Your task to perform on an android device: Check the weather Image 0: 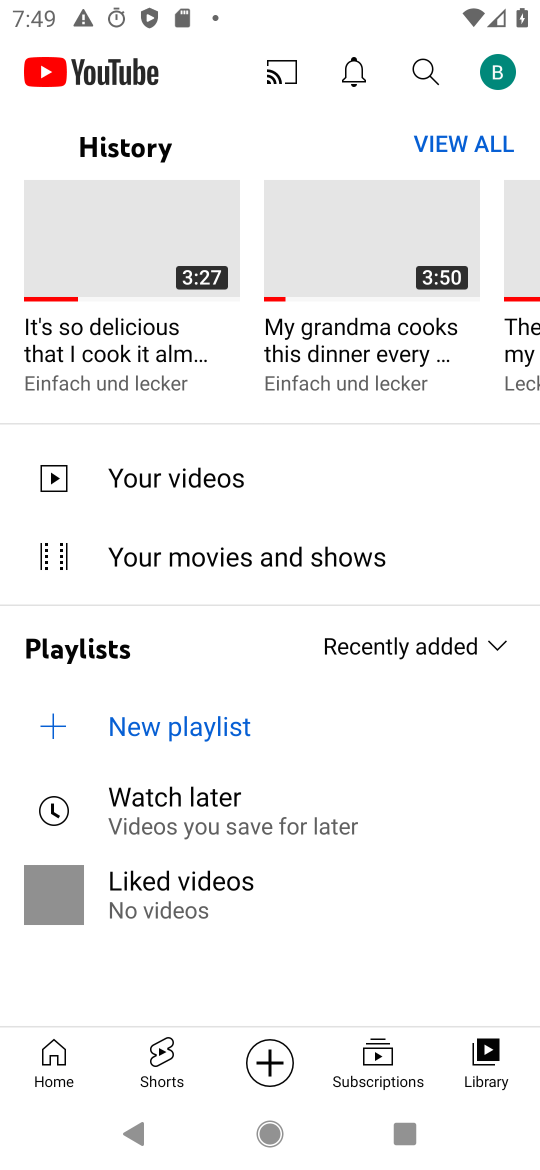
Step 0: press home button
Your task to perform on an android device: Check the weather Image 1: 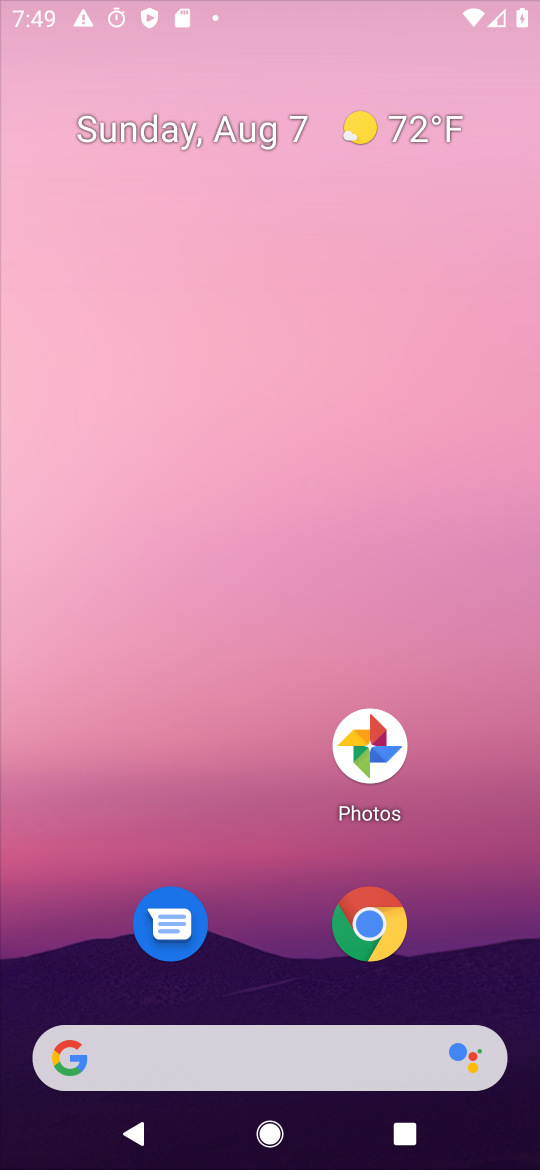
Step 1: press home button
Your task to perform on an android device: Check the weather Image 2: 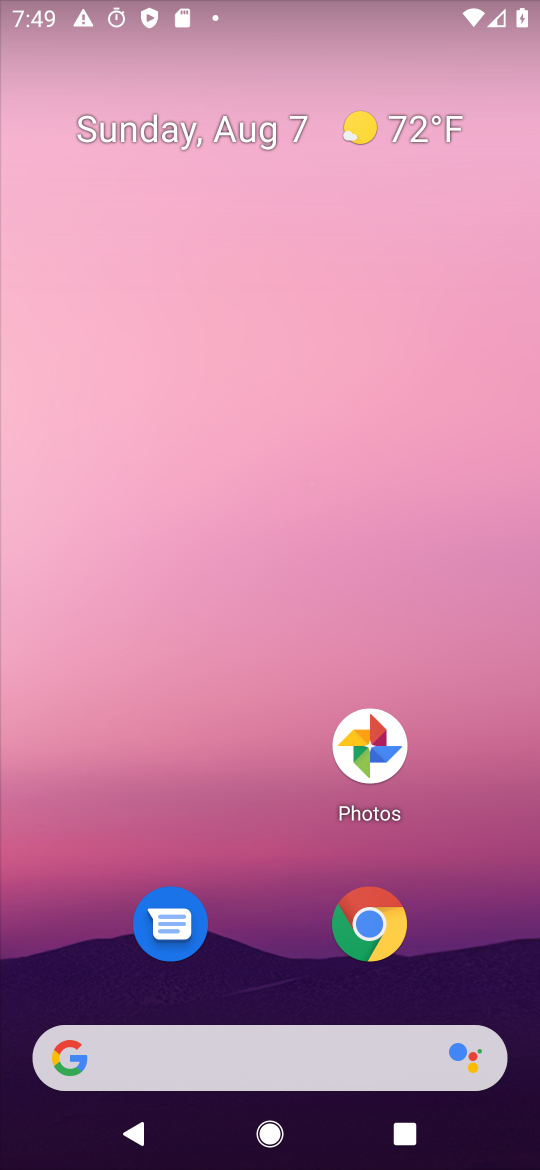
Step 2: click (224, 1093)
Your task to perform on an android device: Check the weather Image 3: 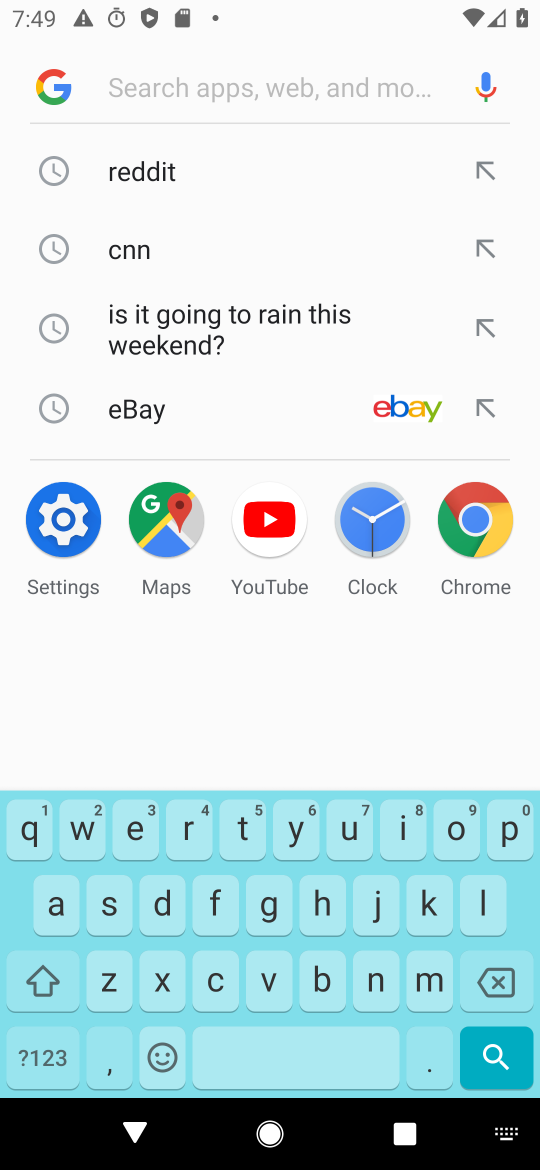
Step 3: click (87, 848)
Your task to perform on an android device: Check the weather Image 4: 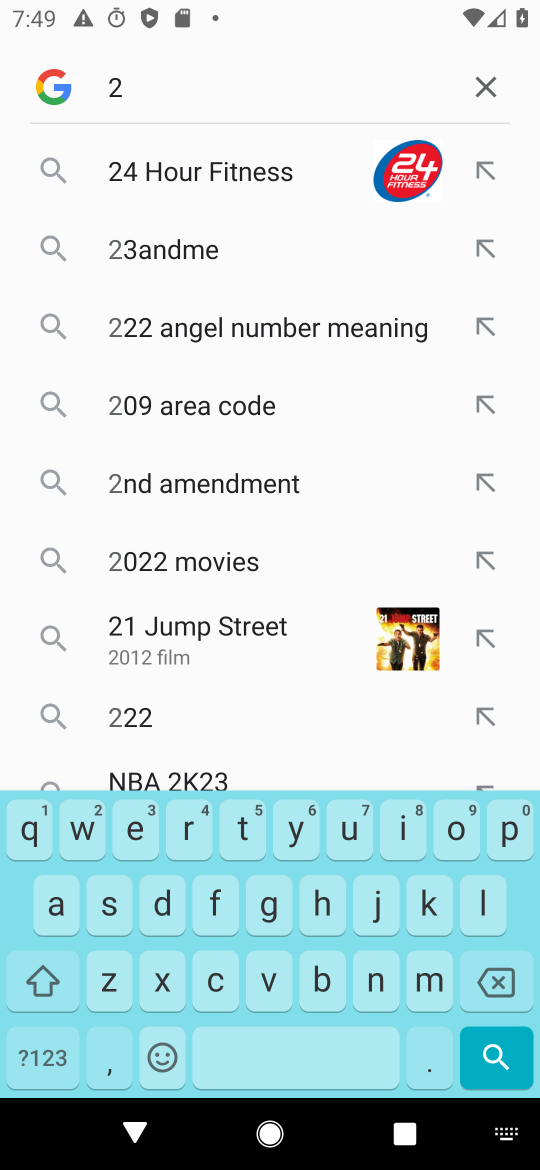
Step 4: click (505, 985)
Your task to perform on an android device: Check the weather Image 5: 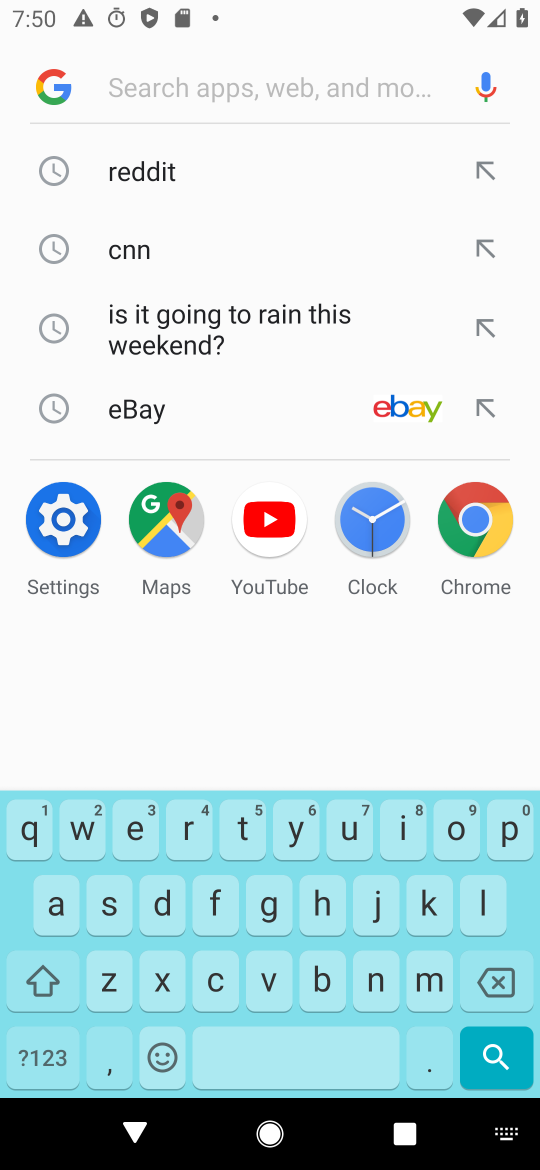
Step 5: click (77, 832)
Your task to perform on an android device: Check the weather Image 6: 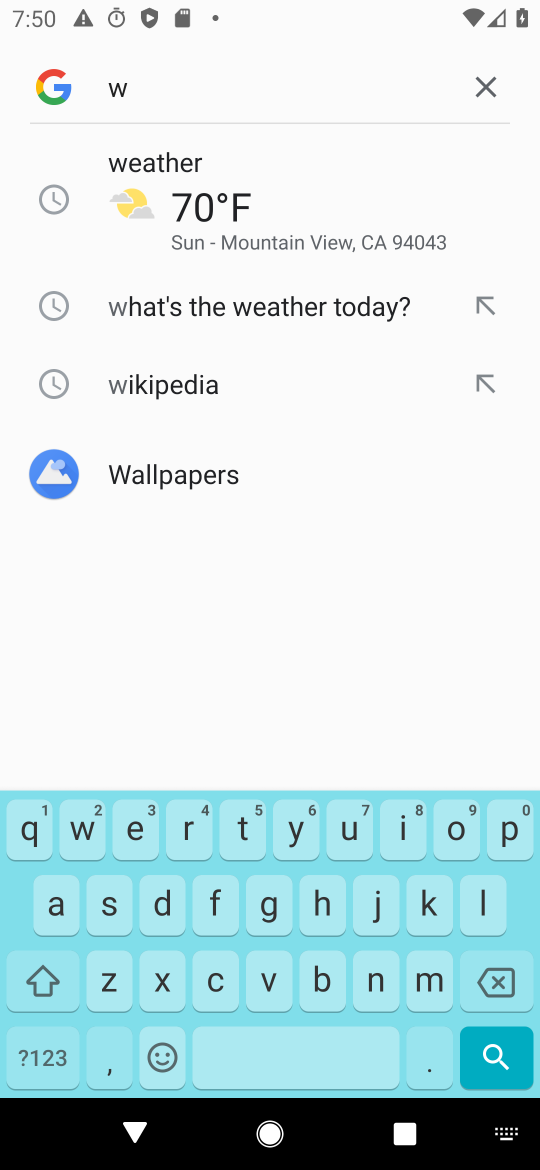
Step 6: click (198, 163)
Your task to perform on an android device: Check the weather Image 7: 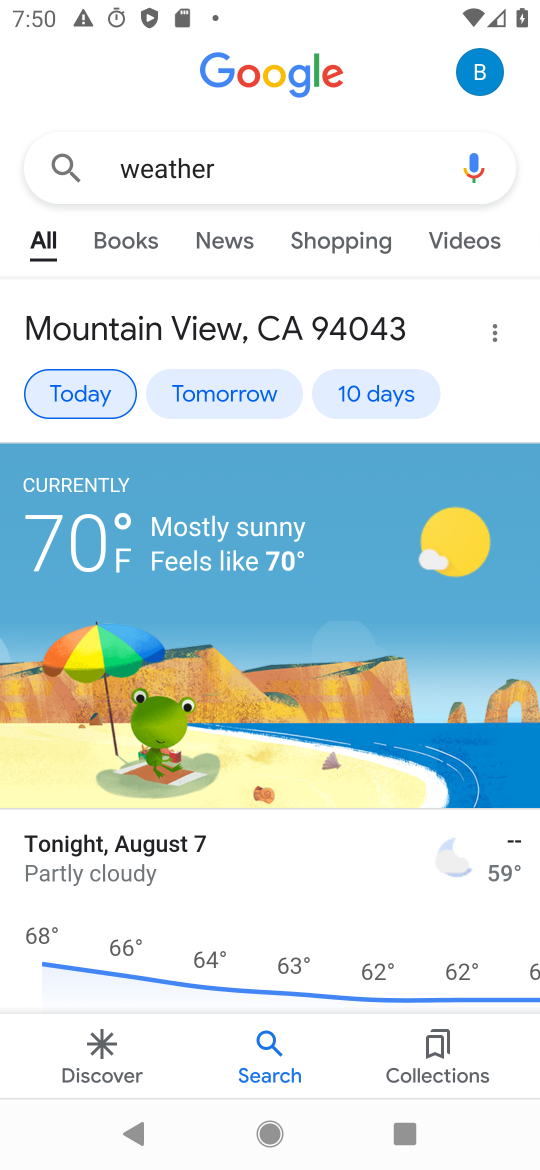
Step 7: task complete